Your task to perform on an android device: open chrome privacy settings Image 0: 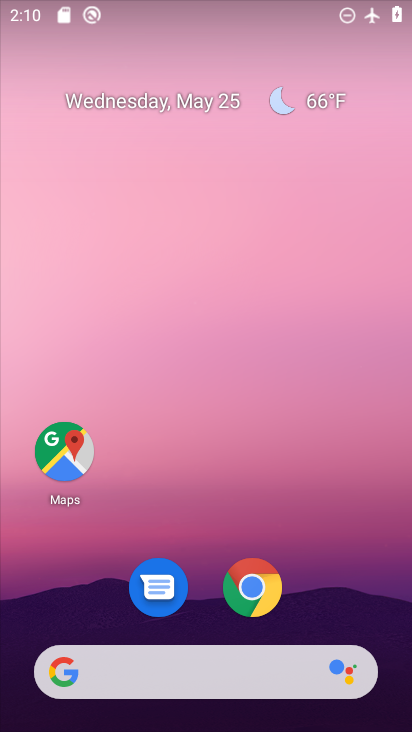
Step 0: drag from (372, 590) to (375, 212)
Your task to perform on an android device: open chrome privacy settings Image 1: 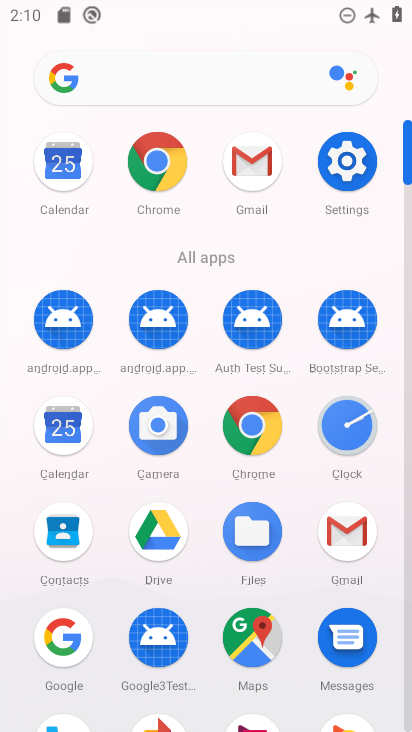
Step 1: click (345, 171)
Your task to perform on an android device: open chrome privacy settings Image 2: 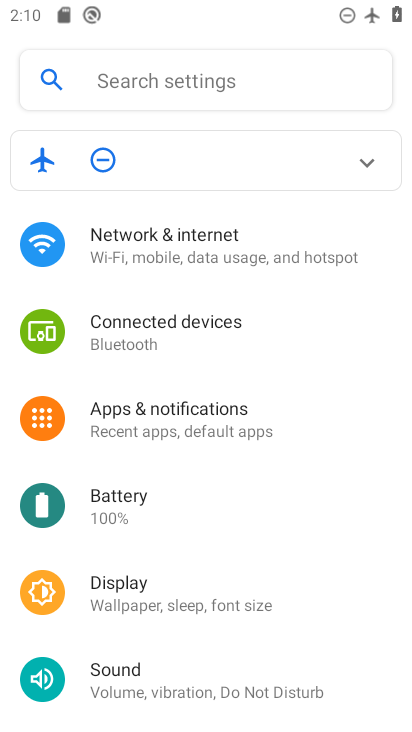
Step 2: drag from (310, 557) to (312, 407)
Your task to perform on an android device: open chrome privacy settings Image 3: 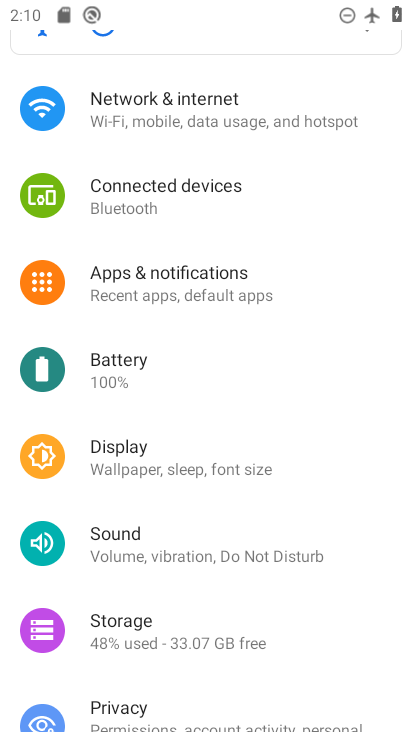
Step 3: drag from (336, 611) to (341, 453)
Your task to perform on an android device: open chrome privacy settings Image 4: 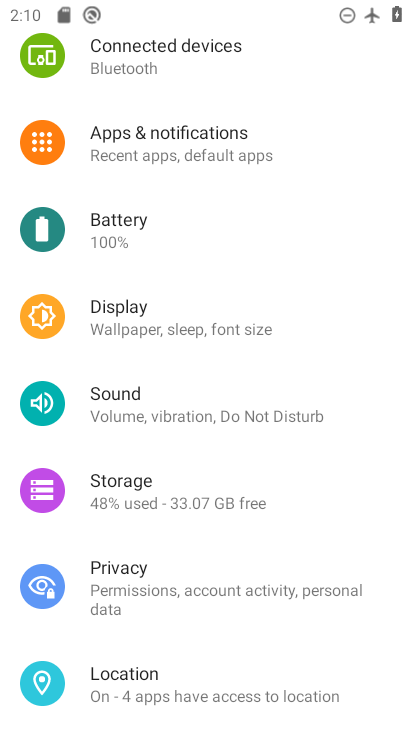
Step 4: drag from (349, 628) to (351, 424)
Your task to perform on an android device: open chrome privacy settings Image 5: 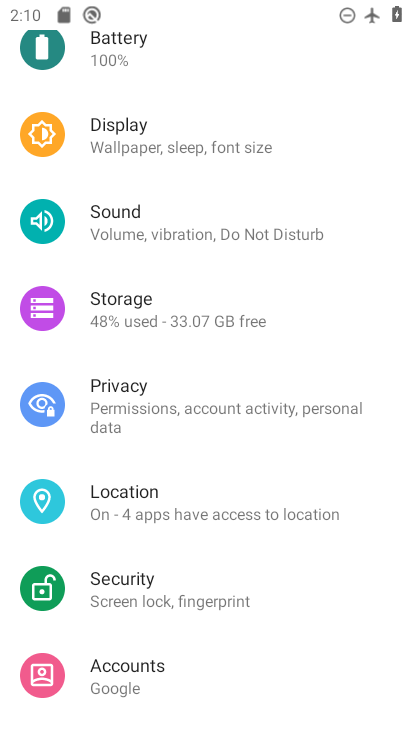
Step 5: drag from (352, 632) to (351, 415)
Your task to perform on an android device: open chrome privacy settings Image 6: 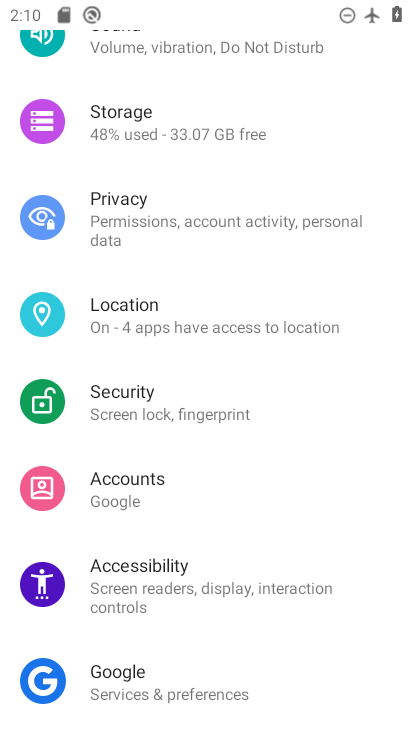
Step 6: drag from (357, 639) to (358, 397)
Your task to perform on an android device: open chrome privacy settings Image 7: 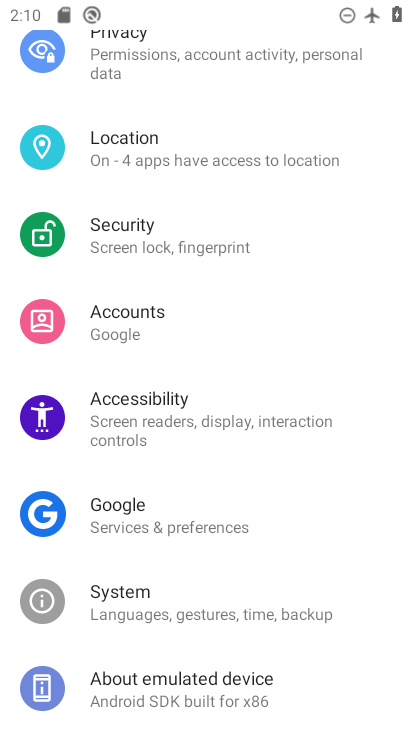
Step 7: drag from (341, 643) to (348, 399)
Your task to perform on an android device: open chrome privacy settings Image 8: 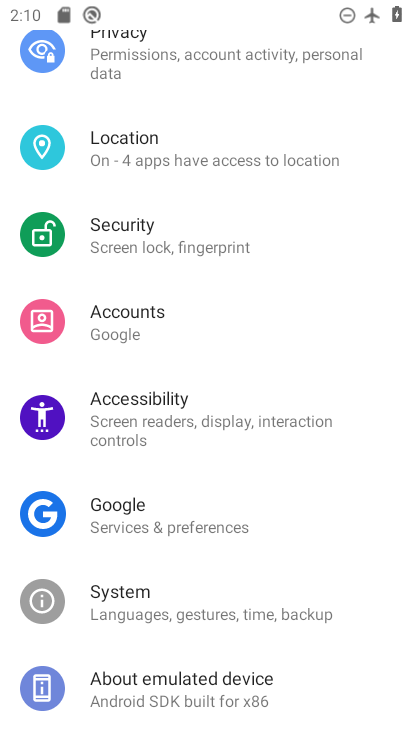
Step 8: drag from (343, 245) to (332, 476)
Your task to perform on an android device: open chrome privacy settings Image 9: 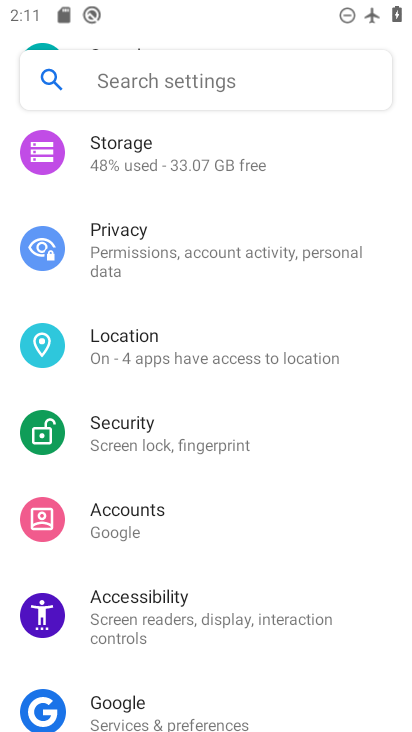
Step 9: drag from (340, 270) to (343, 453)
Your task to perform on an android device: open chrome privacy settings Image 10: 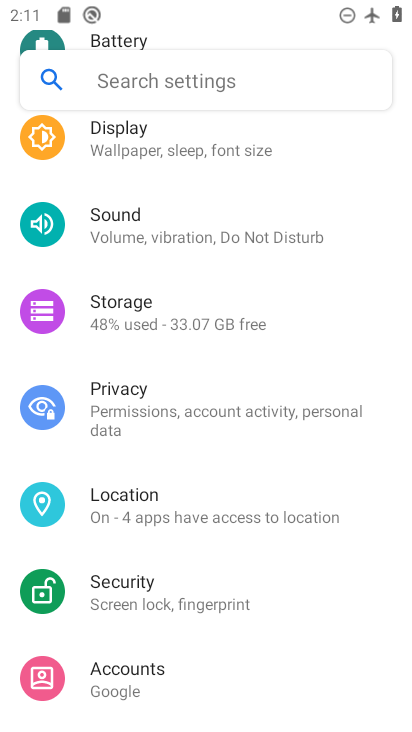
Step 10: drag from (340, 266) to (337, 424)
Your task to perform on an android device: open chrome privacy settings Image 11: 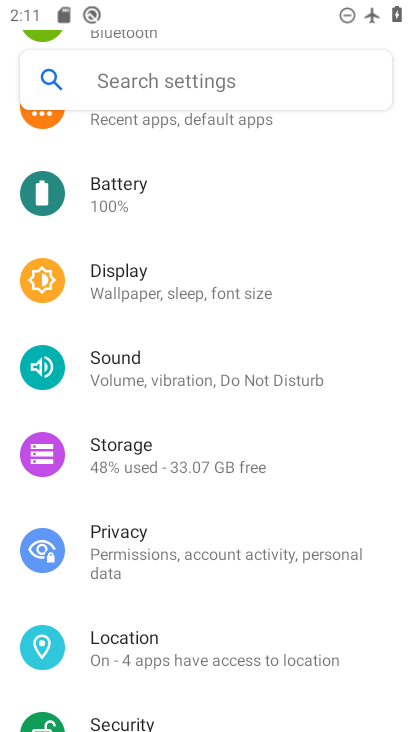
Step 11: drag from (346, 245) to (348, 434)
Your task to perform on an android device: open chrome privacy settings Image 12: 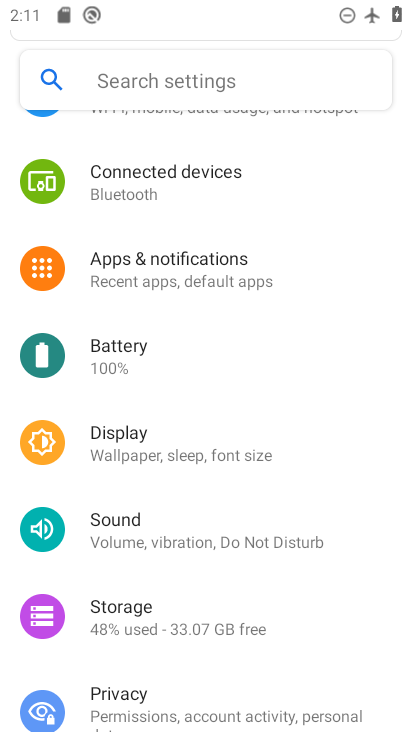
Step 12: drag from (343, 210) to (348, 402)
Your task to perform on an android device: open chrome privacy settings Image 13: 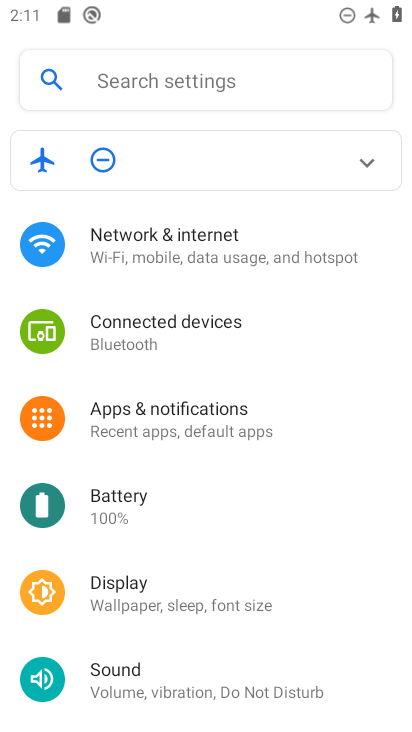
Step 13: drag from (324, 222) to (330, 387)
Your task to perform on an android device: open chrome privacy settings Image 14: 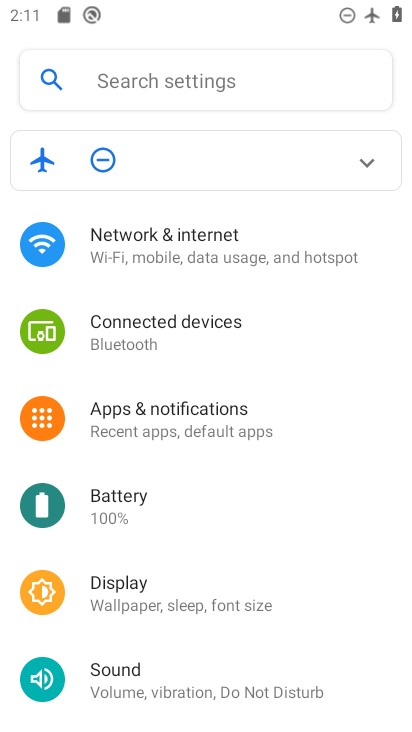
Step 14: drag from (327, 530) to (330, 390)
Your task to perform on an android device: open chrome privacy settings Image 15: 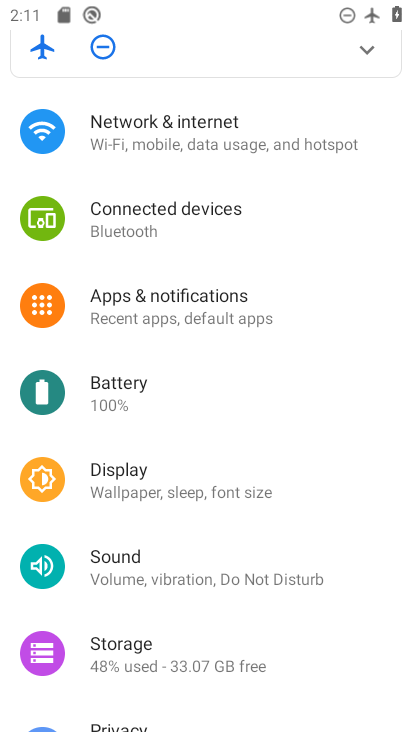
Step 15: drag from (345, 590) to (342, 408)
Your task to perform on an android device: open chrome privacy settings Image 16: 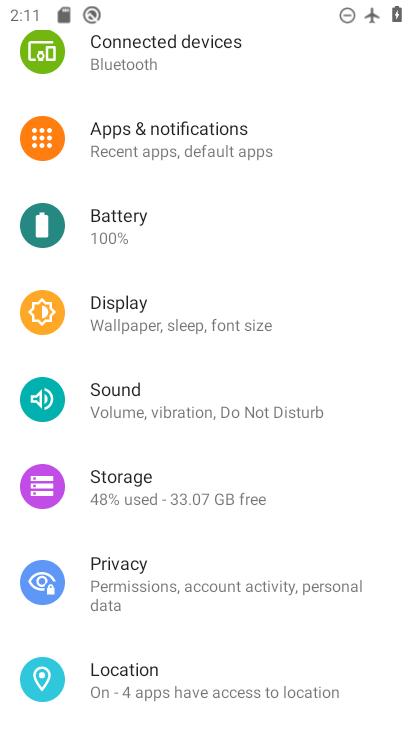
Step 16: drag from (344, 612) to (343, 436)
Your task to perform on an android device: open chrome privacy settings Image 17: 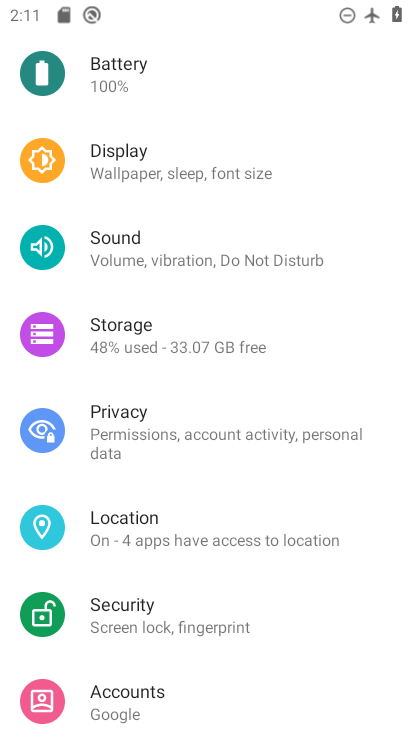
Step 17: drag from (337, 614) to (338, 449)
Your task to perform on an android device: open chrome privacy settings Image 18: 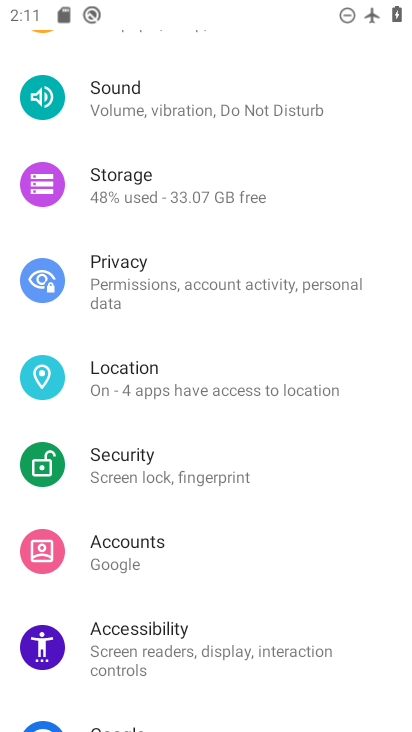
Step 18: drag from (293, 321) to (293, 463)
Your task to perform on an android device: open chrome privacy settings Image 19: 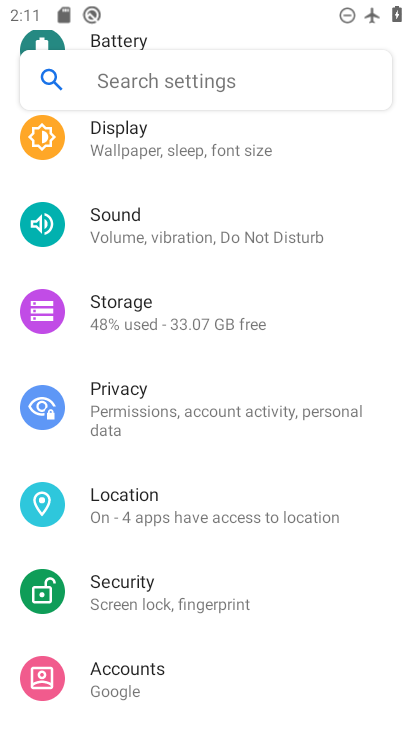
Step 19: click (247, 407)
Your task to perform on an android device: open chrome privacy settings Image 20: 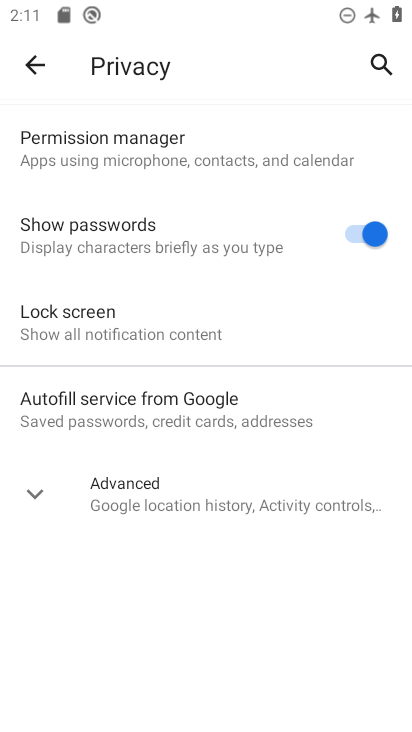
Step 20: task complete